Your task to perform on an android device: Open maps Image 0: 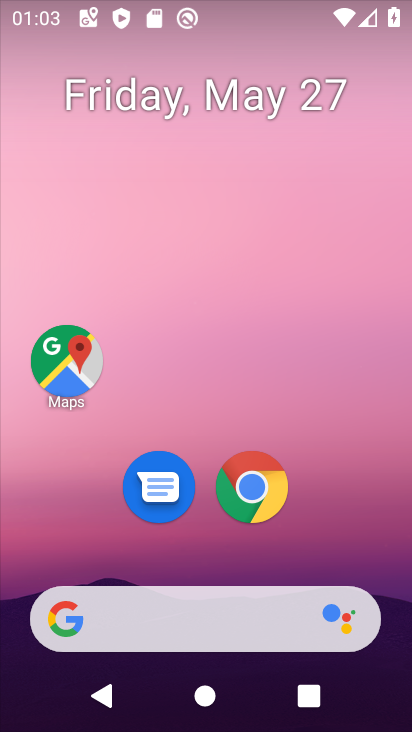
Step 0: click (78, 345)
Your task to perform on an android device: Open maps Image 1: 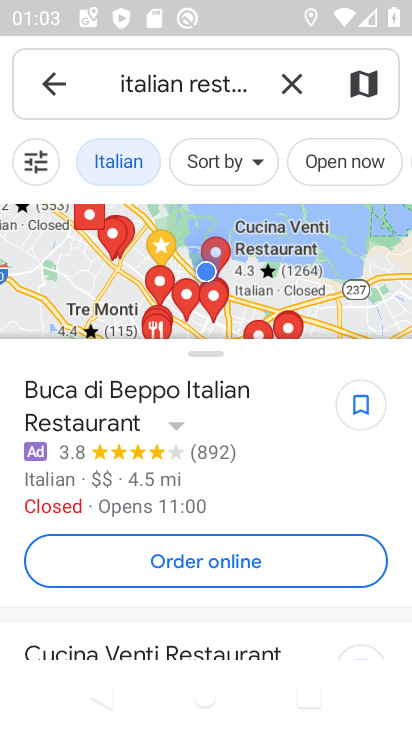
Step 1: task complete